Your task to perform on an android device: toggle pop-ups in chrome Image 0: 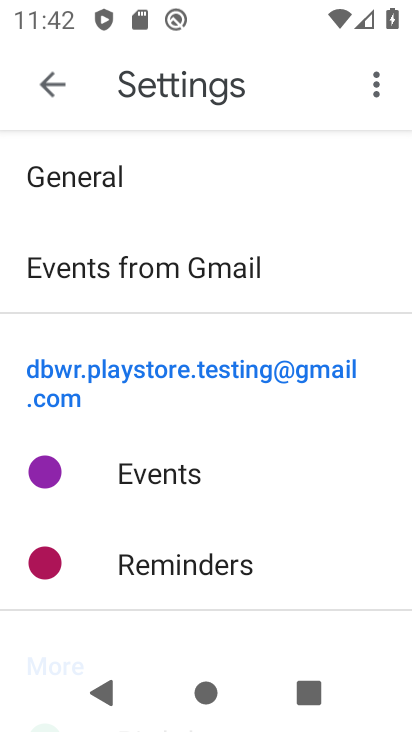
Step 0: press home button
Your task to perform on an android device: toggle pop-ups in chrome Image 1: 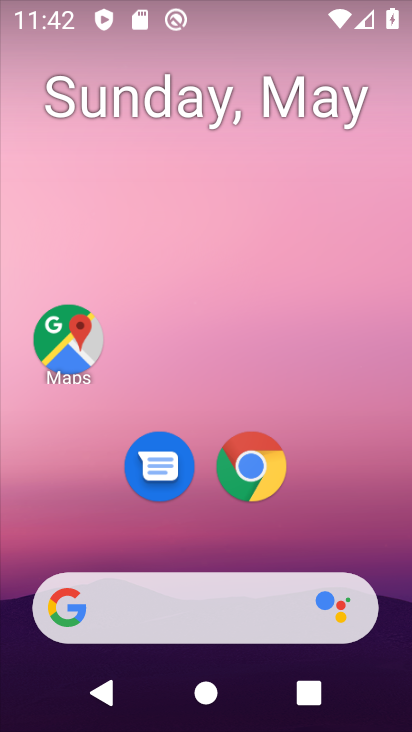
Step 1: drag from (190, 551) to (146, 46)
Your task to perform on an android device: toggle pop-ups in chrome Image 2: 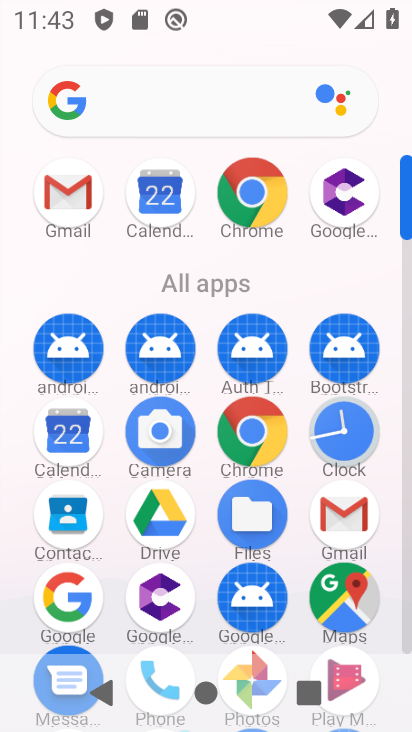
Step 2: click (404, 628)
Your task to perform on an android device: toggle pop-ups in chrome Image 3: 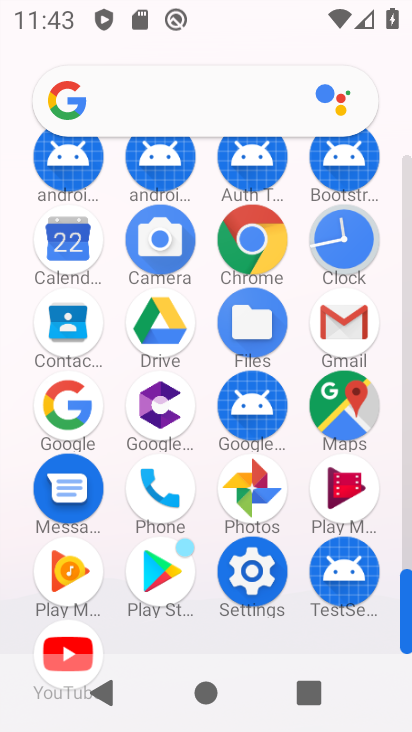
Step 3: drag from (404, 628) to (406, 344)
Your task to perform on an android device: toggle pop-ups in chrome Image 4: 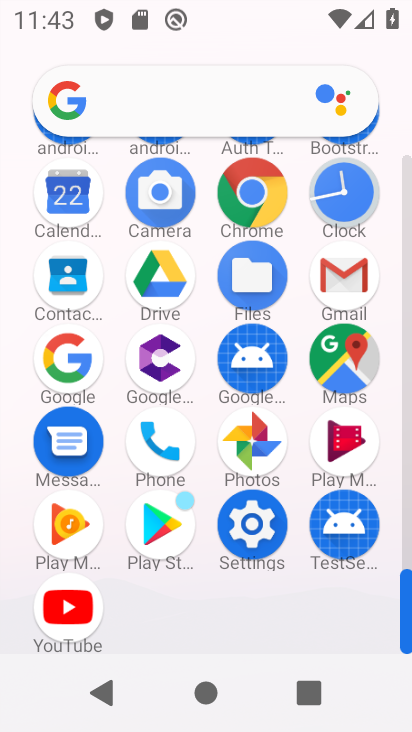
Step 4: click (260, 183)
Your task to perform on an android device: toggle pop-ups in chrome Image 5: 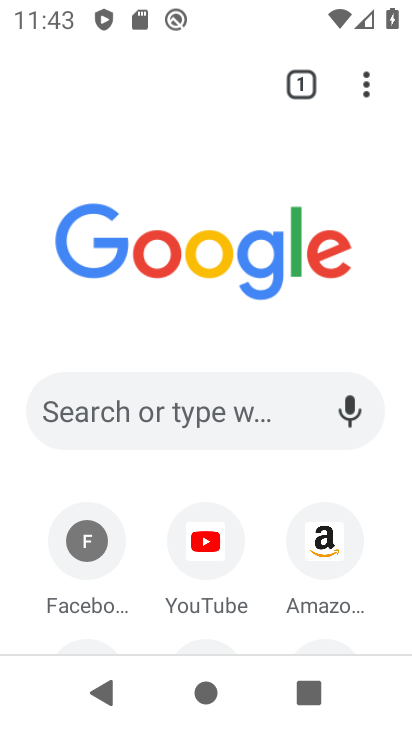
Step 5: drag from (371, 84) to (141, 542)
Your task to perform on an android device: toggle pop-ups in chrome Image 6: 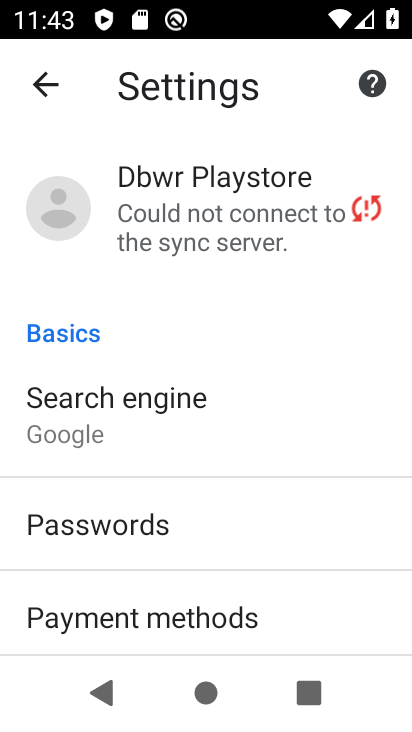
Step 6: drag from (294, 600) to (257, 212)
Your task to perform on an android device: toggle pop-ups in chrome Image 7: 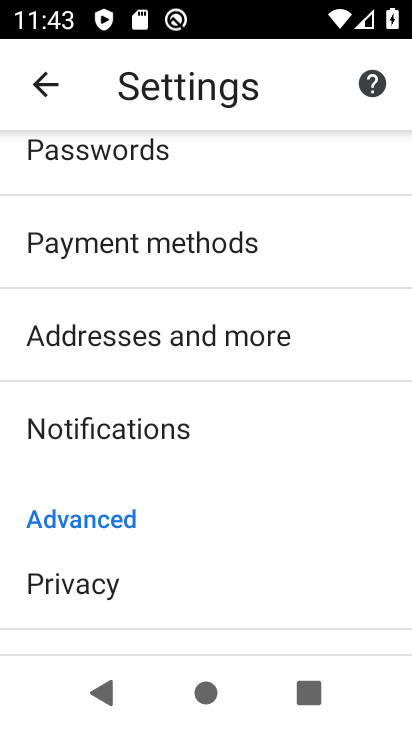
Step 7: drag from (247, 538) to (249, 342)
Your task to perform on an android device: toggle pop-ups in chrome Image 8: 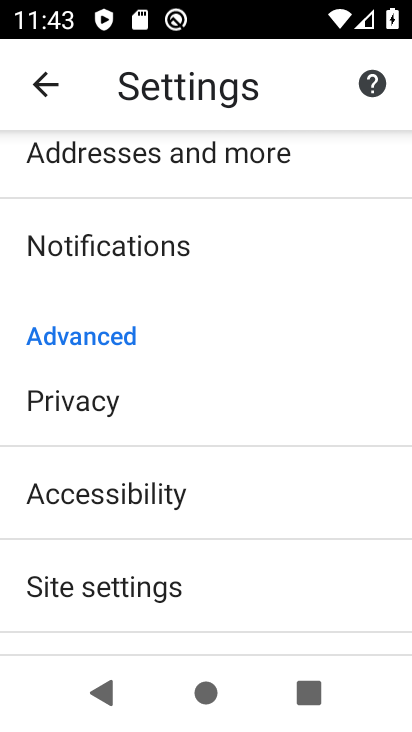
Step 8: click (184, 578)
Your task to perform on an android device: toggle pop-ups in chrome Image 9: 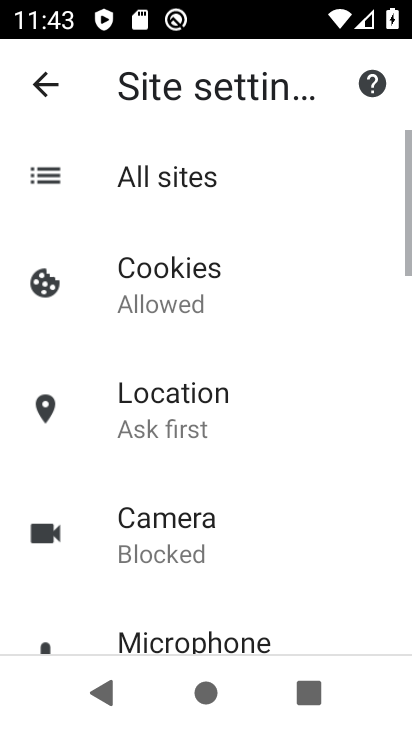
Step 9: drag from (184, 571) to (172, 278)
Your task to perform on an android device: toggle pop-ups in chrome Image 10: 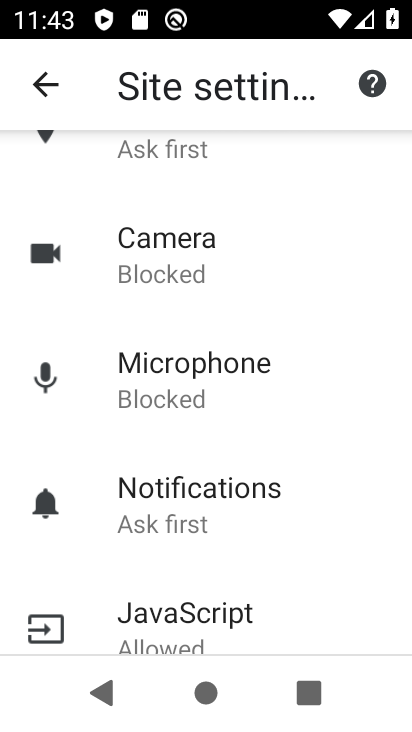
Step 10: drag from (171, 573) to (152, 214)
Your task to perform on an android device: toggle pop-ups in chrome Image 11: 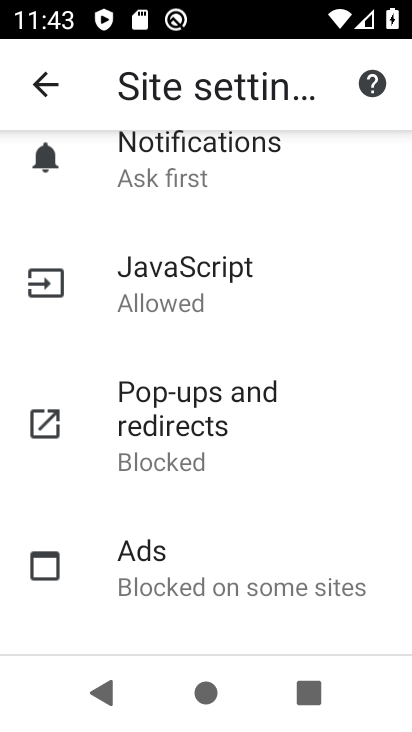
Step 11: click (146, 431)
Your task to perform on an android device: toggle pop-ups in chrome Image 12: 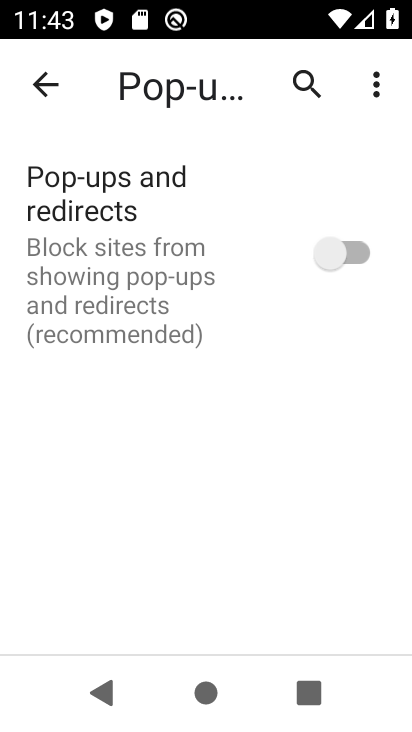
Step 12: click (312, 240)
Your task to perform on an android device: toggle pop-ups in chrome Image 13: 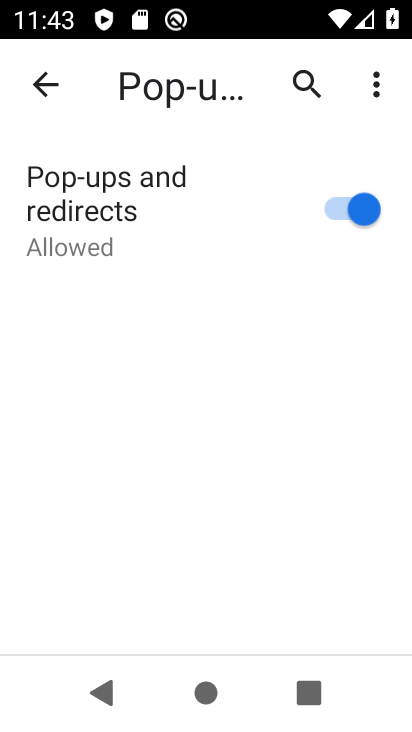
Step 13: task complete